Your task to perform on an android device: toggle wifi Image 0: 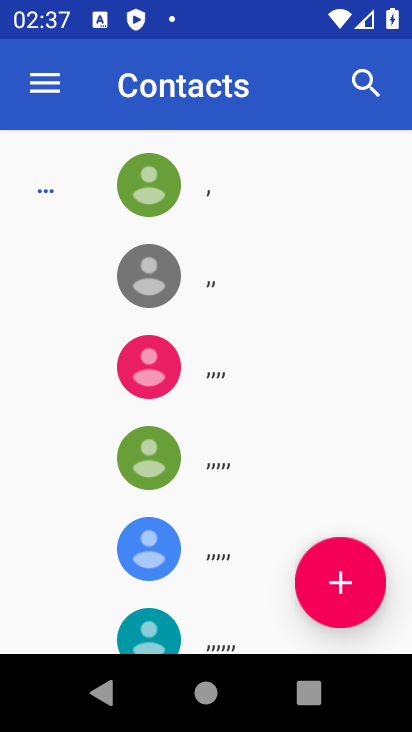
Step 0: press home button
Your task to perform on an android device: toggle wifi Image 1: 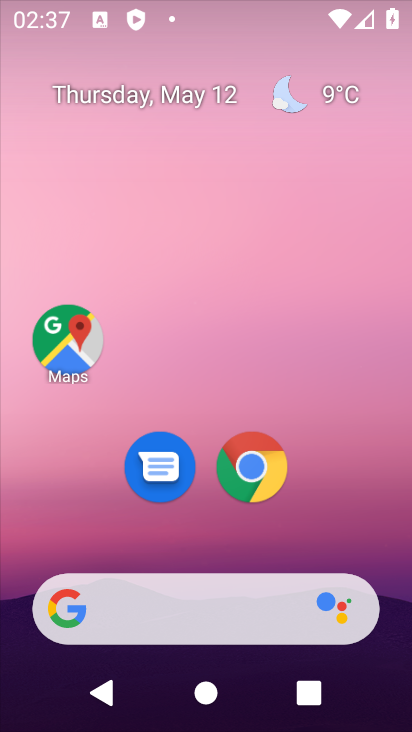
Step 1: drag from (303, 545) to (296, 228)
Your task to perform on an android device: toggle wifi Image 2: 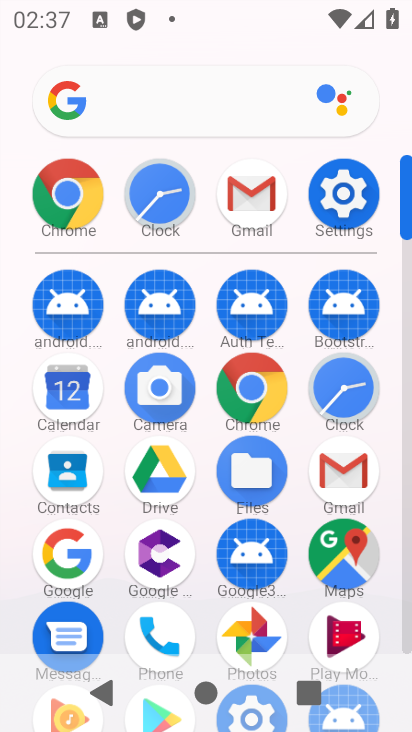
Step 2: click (347, 187)
Your task to perform on an android device: toggle wifi Image 3: 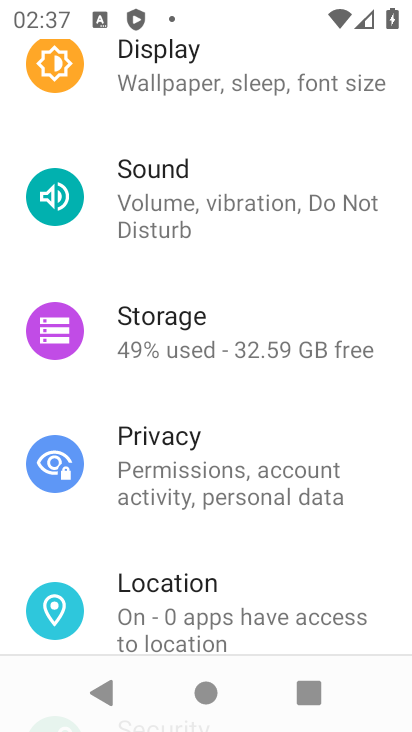
Step 3: drag from (238, 136) to (223, 620)
Your task to perform on an android device: toggle wifi Image 4: 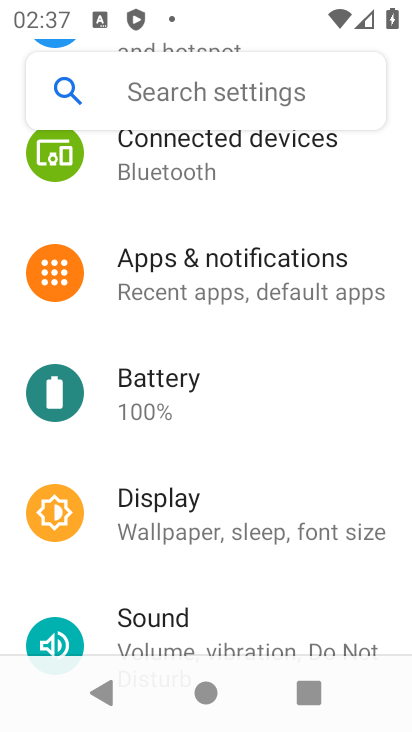
Step 4: drag from (193, 174) to (188, 691)
Your task to perform on an android device: toggle wifi Image 5: 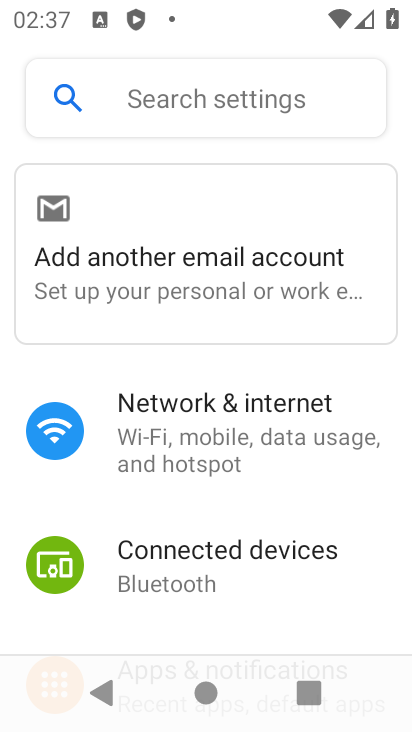
Step 5: click (170, 436)
Your task to perform on an android device: toggle wifi Image 6: 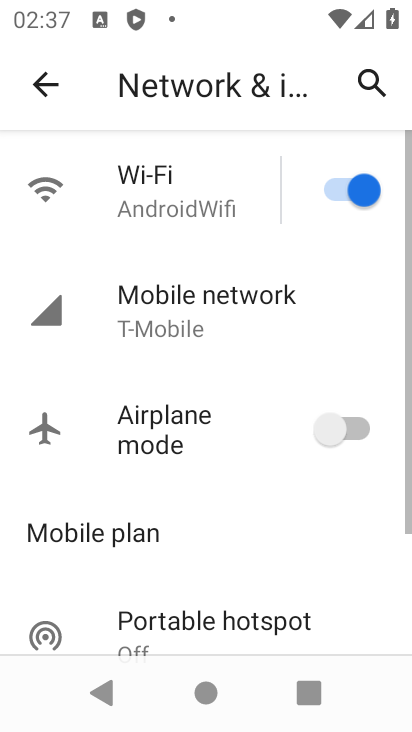
Step 6: click (322, 181)
Your task to perform on an android device: toggle wifi Image 7: 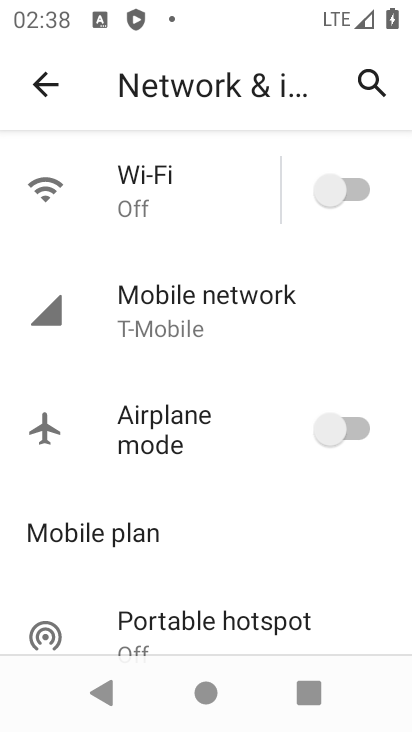
Step 7: task complete